Your task to perform on an android device: turn on priority inbox in the gmail app Image 0: 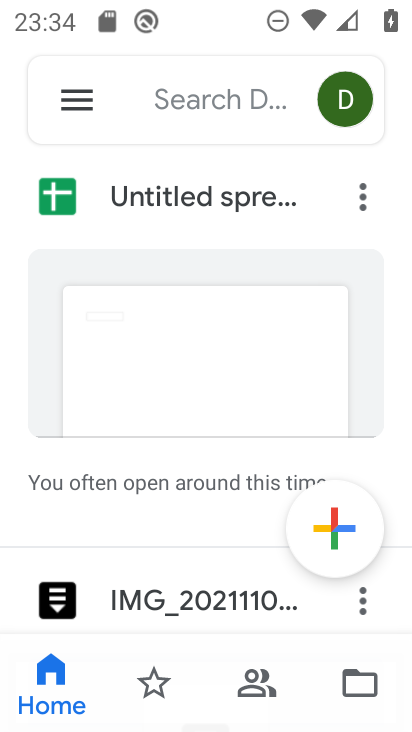
Step 0: press home button
Your task to perform on an android device: turn on priority inbox in the gmail app Image 1: 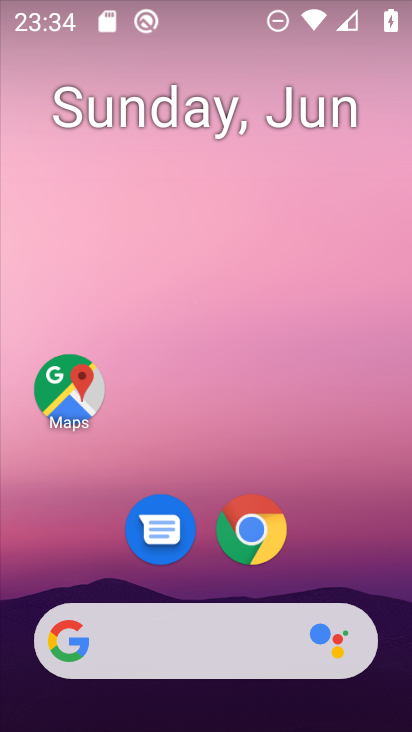
Step 1: drag from (397, 631) to (307, 61)
Your task to perform on an android device: turn on priority inbox in the gmail app Image 2: 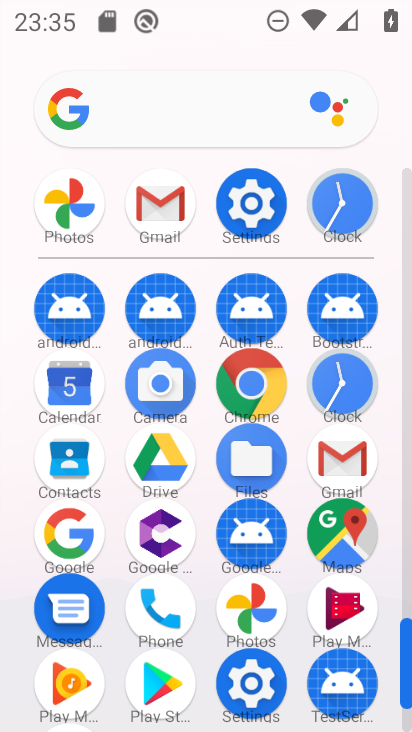
Step 2: click (343, 462)
Your task to perform on an android device: turn on priority inbox in the gmail app Image 3: 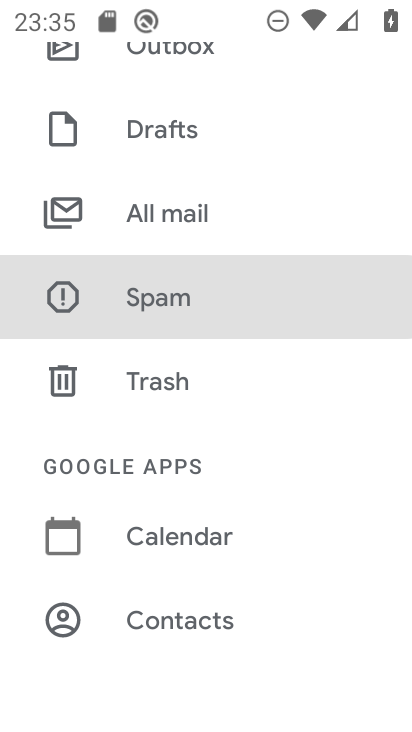
Step 3: drag from (291, 583) to (266, 123)
Your task to perform on an android device: turn on priority inbox in the gmail app Image 4: 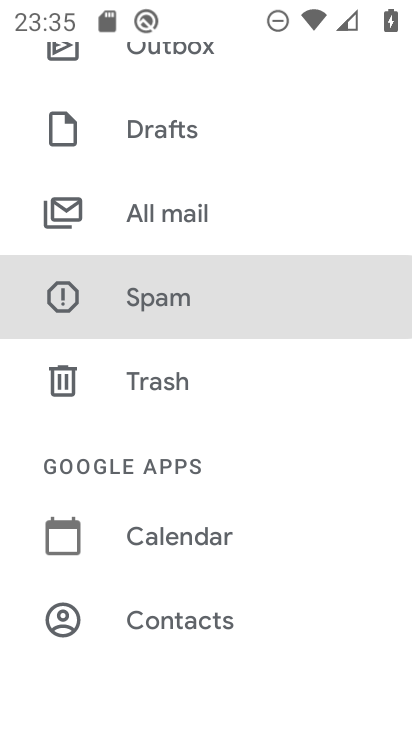
Step 4: drag from (273, 618) to (233, 141)
Your task to perform on an android device: turn on priority inbox in the gmail app Image 5: 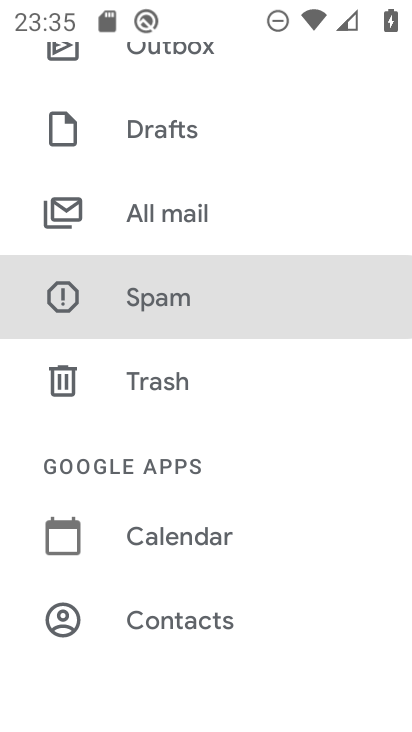
Step 5: drag from (275, 576) to (308, 138)
Your task to perform on an android device: turn on priority inbox in the gmail app Image 6: 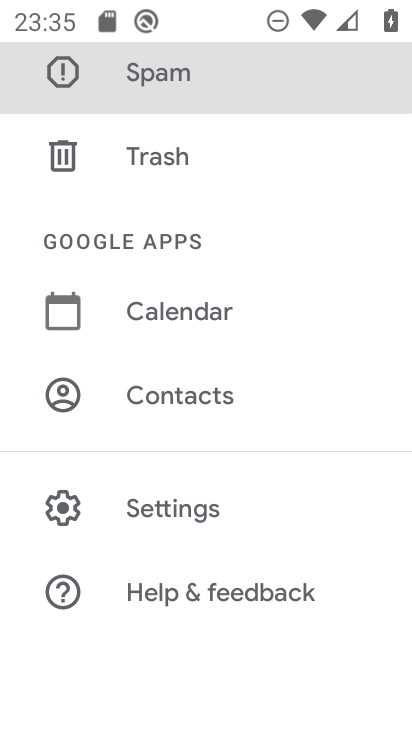
Step 6: click (175, 510)
Your task to perform on an android device: turn on priority inbox in the gmail app Image 7: 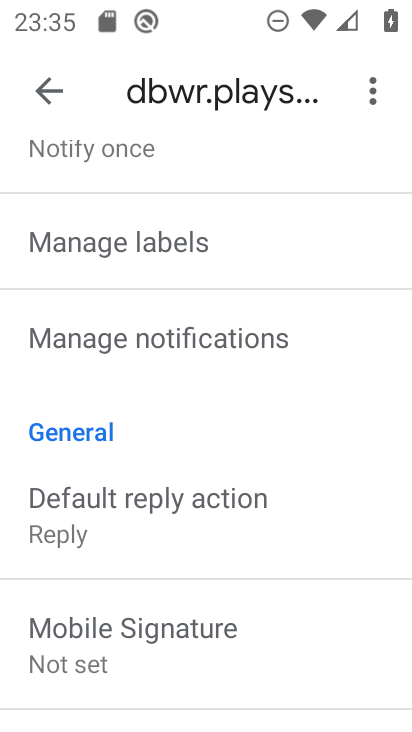
Step 7: drag from (310, 263) to (294, 555)
Your task to perform on an android device: turn on priority inbox in the gmail app Image 8: 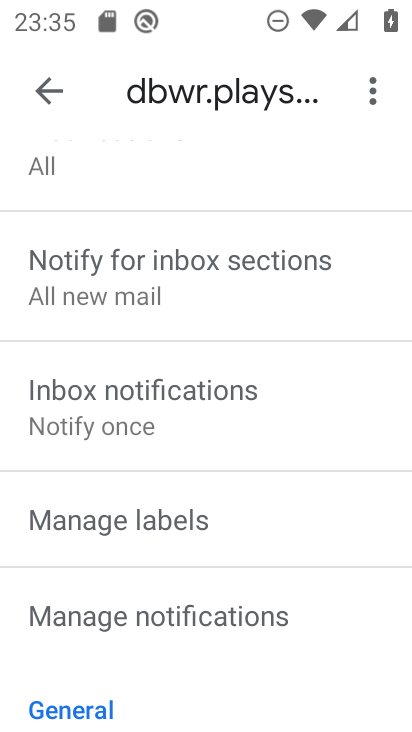
Step 8: drag from (311, 213) to (303, 550)
Your task to perform on an android device: turn on priority inbox in the gmail app Image 9: 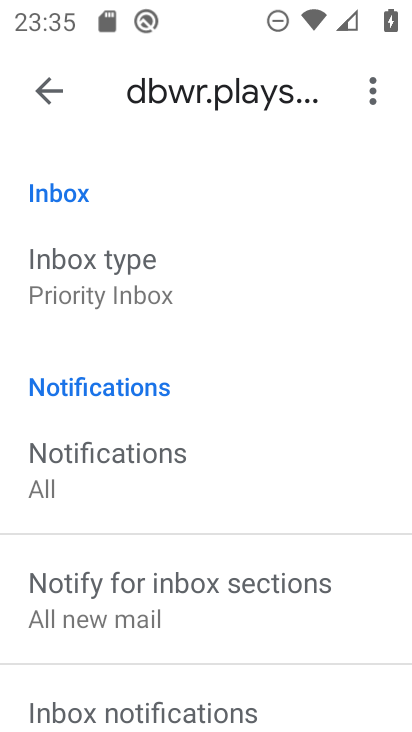
Step 9: click (96, 273)
Your task to perform on an android device: turn on priority inbox in the gmail app Image 10: 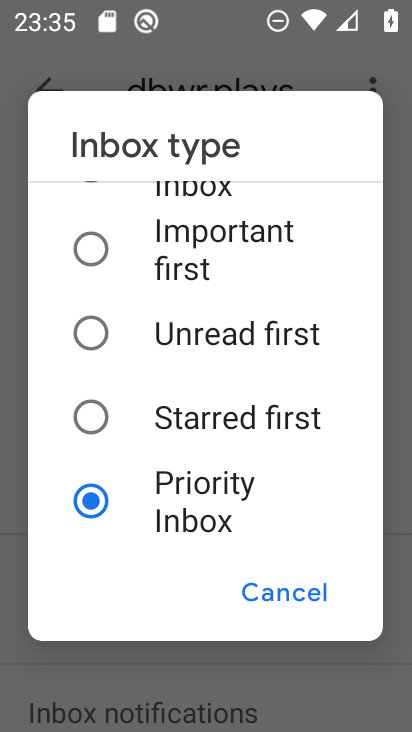
Step 10: task complete